Your task to perform on an android device: Play the last video I watched on Youtube Image 0: 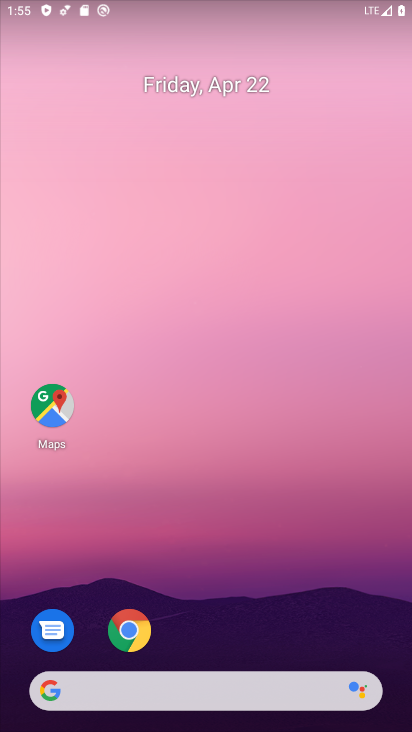
Step 0: drag from (359, 590) to (350, 227)
Your task to perform on an android device: Play the last video I watched on Youtube Image 1: 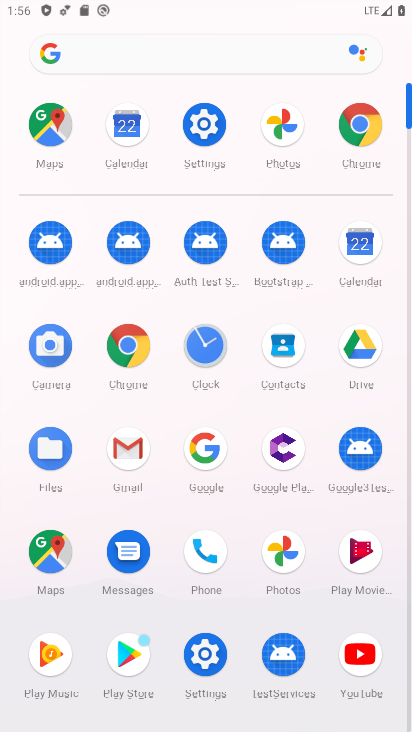
Step 1: click (353, 652)
Your task to perform on an android device: Play the last video I watched on Youtube Image 2: 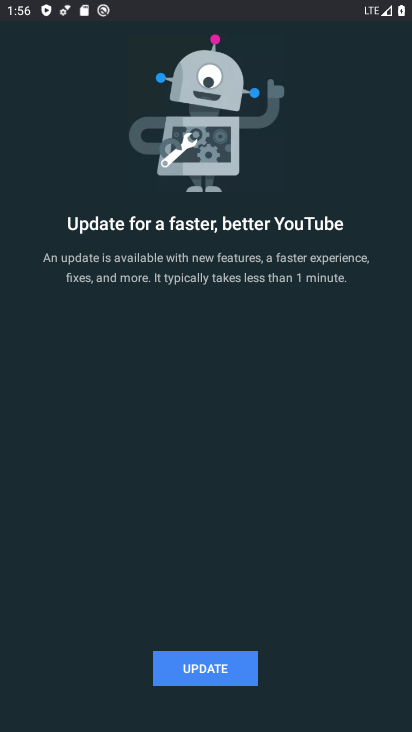
Step 2: click (217, 668)
Your task to perform on an android device: Play the last video I watched on Youtube Image 3: 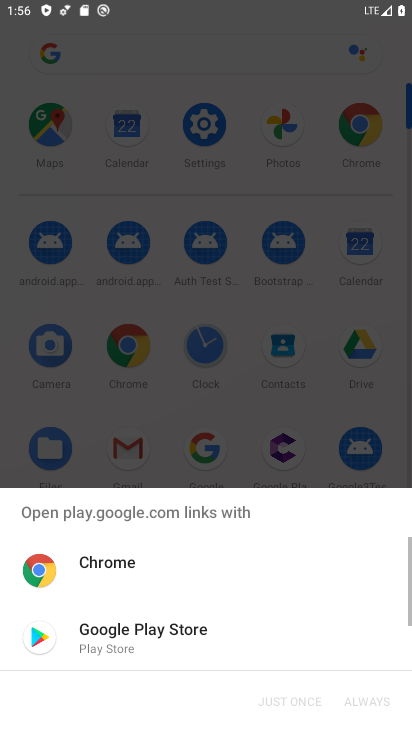
Step 3: click (210, 640)
Your task to perform on an android device: Play the last video I watched on Youtube Image 4: 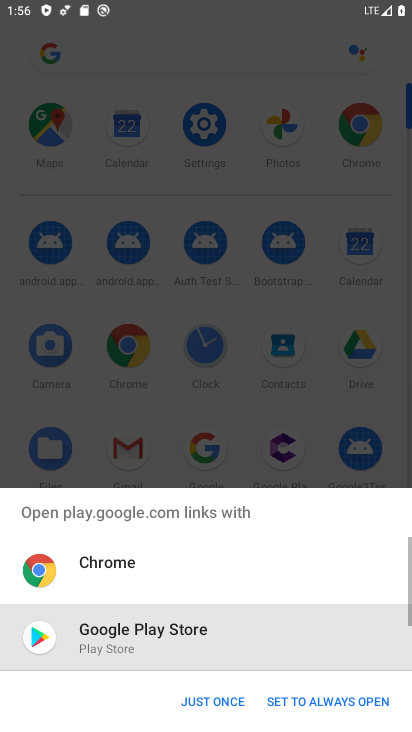
Step 4: click (189, 694)
Your task to perform on an android device: Play the last video I watched on Youtube Image 5: 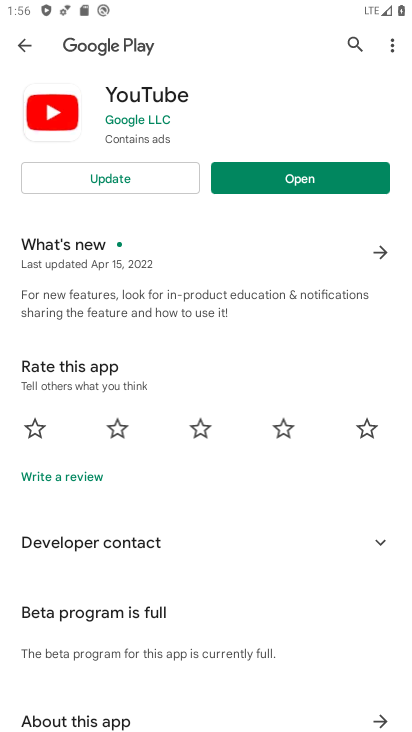
Step 5: click (161, 184)
Your task to perform on an android device: Play the last video I watched on Youtube Image 6: 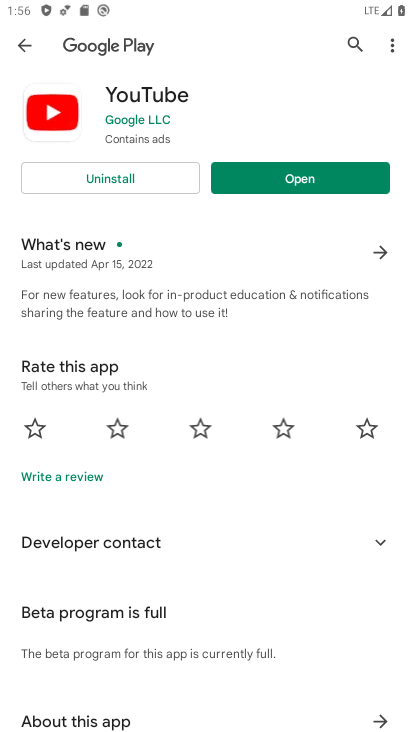
Step 6: click (288, 178)
Your task to perform on an android device: Play the last video I watched on Youtube Image 7: 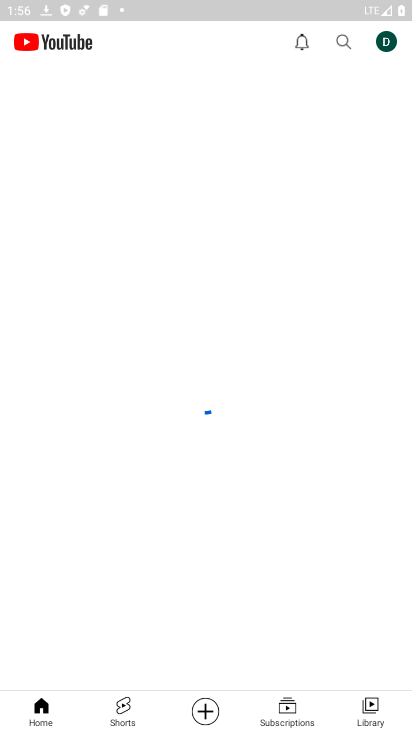
Step 7: click (368, 709)
Your task to perform on an android device: Play the last video I watched on Youtube Image 8: 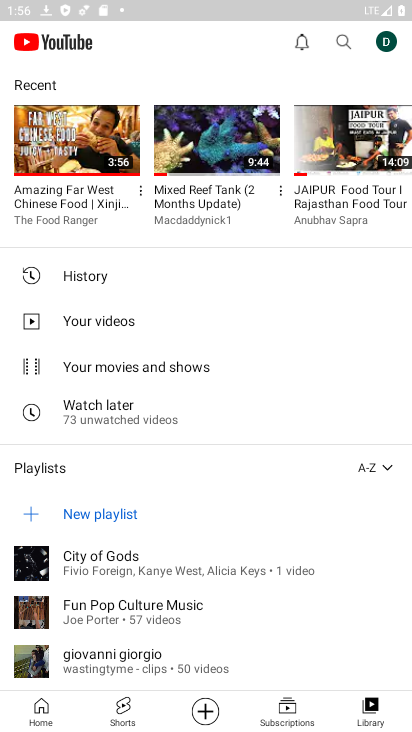
Step 8: click (80, 270)
Your task to perform on an android device: Play the last video I watched on Youtube Image 9: 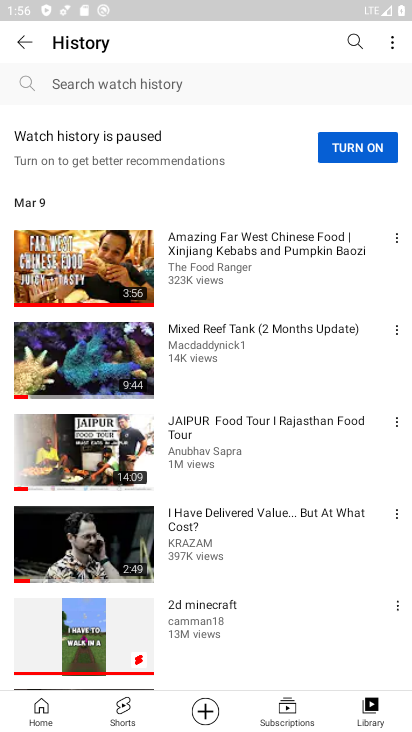
Step 9: task complete